Your task to perform on an android device: Open Google Image 0: 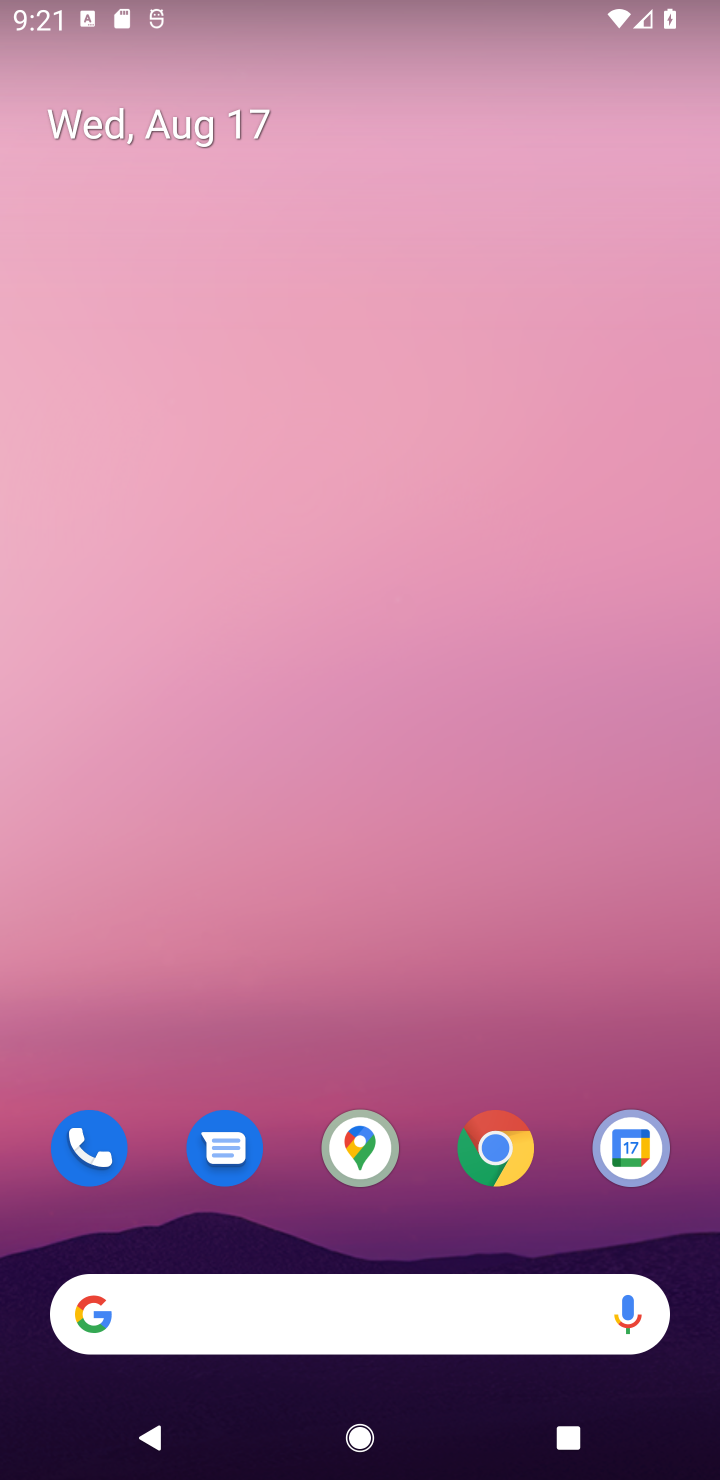
Step 0: click (496, 1156)
Your task to perform on an android device: Open Google Image 1: 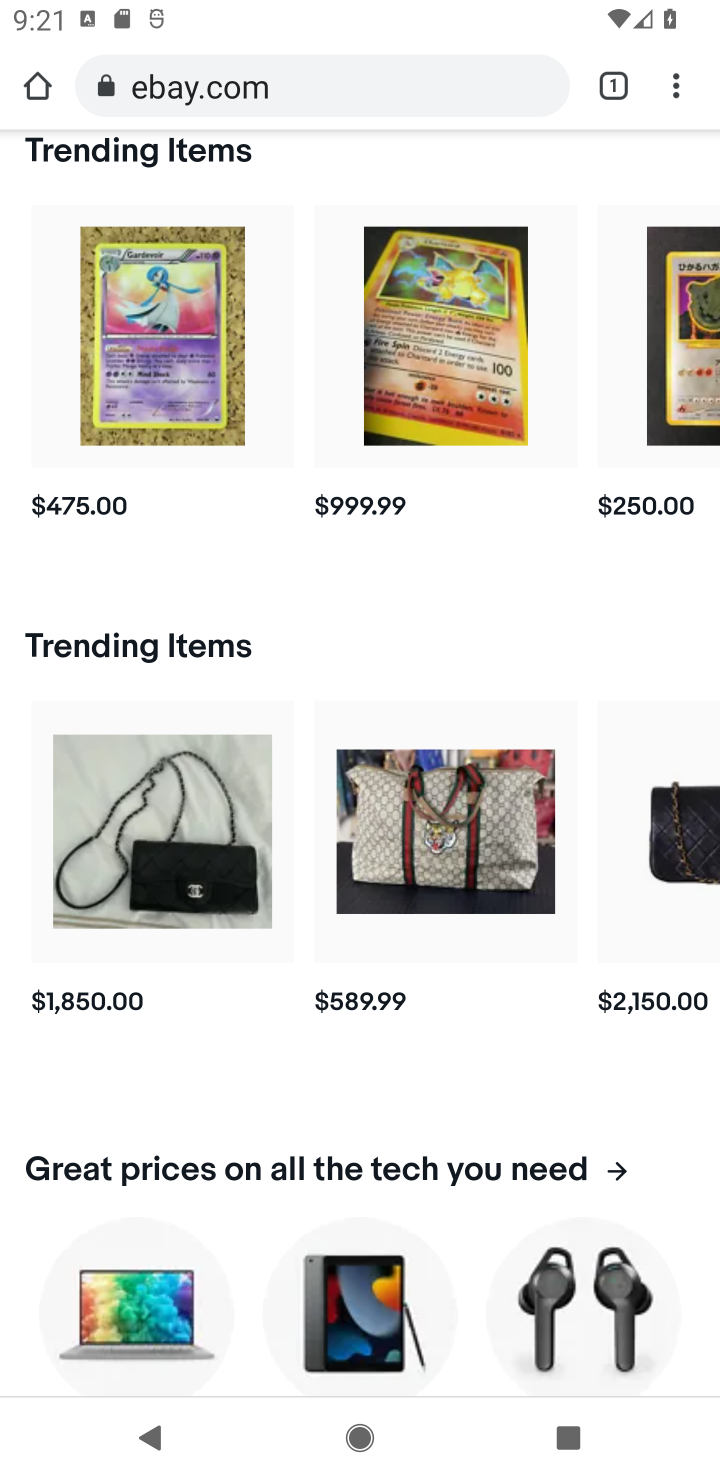
Step 1: task complete